Your task to perform on an android device: turn on priority inbox in the gmail app Image 0: 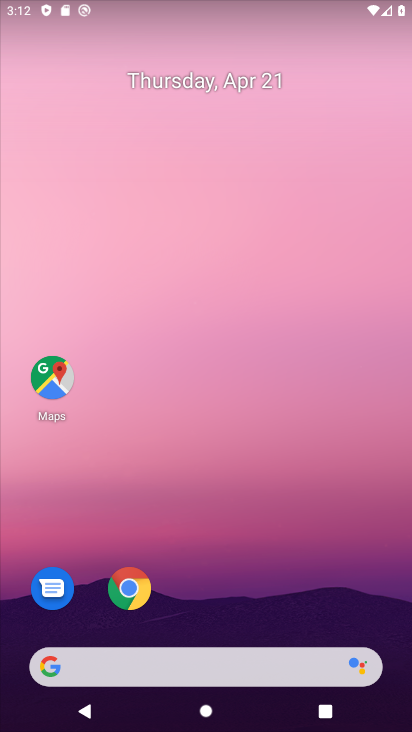
Step 0: drag from (211, 659) to (248, 65)
Your task to perform on an android device: turn on priority inbox in the gmail app Image 1: 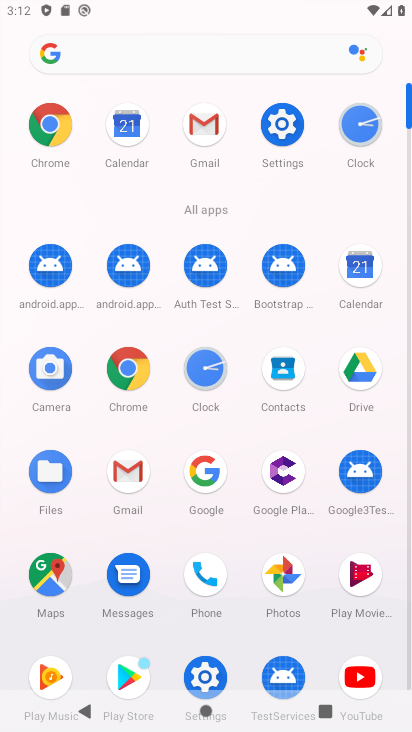
Step 1: click (198, 126)
Your task to perform on an android device: turn on priority inbox in the gmail app Image 2: 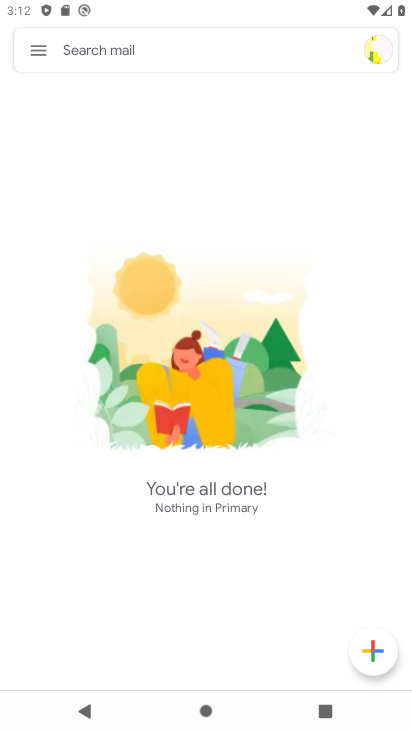
Step 2: click (28, 49)
Your task to perform on an android device: turn on priority inbox in the gmail app Image 3: 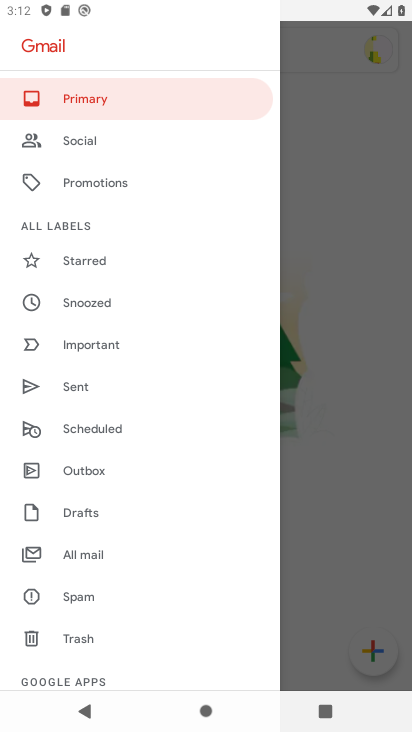
Step 3: drag from (123, 611) to (217, 140)
Your task to perform on an android device: turn on priority inbox in the gmail app Image 4: 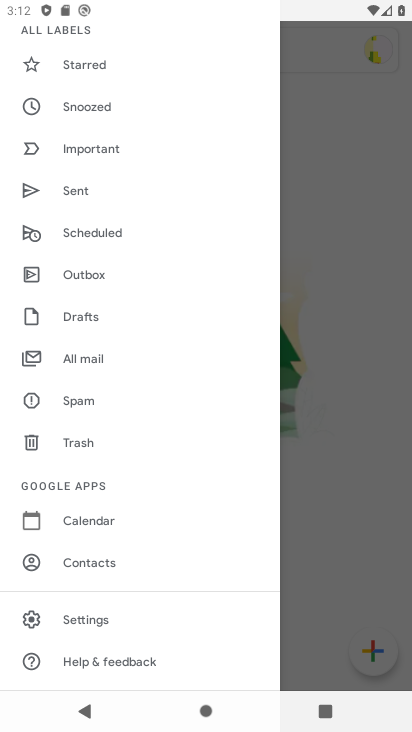
Step 4: click (101, 617)
Your task to perform on an android device: turn on priority inbox in the gmail app Image 5: 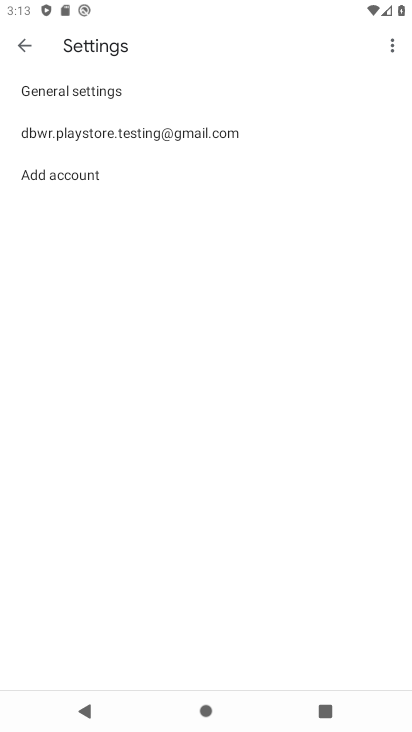
Step 5: click (107, 133)
Your task to perform on an android device: turn on priority inbox in the gmail app Image 6: 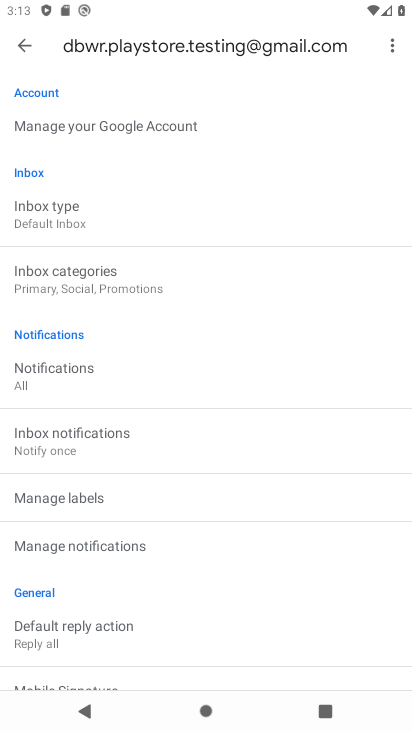
Step 6: click (63, 217)
Your task to perform on an android device: turn on priority inbox in the gmail app Image 7: 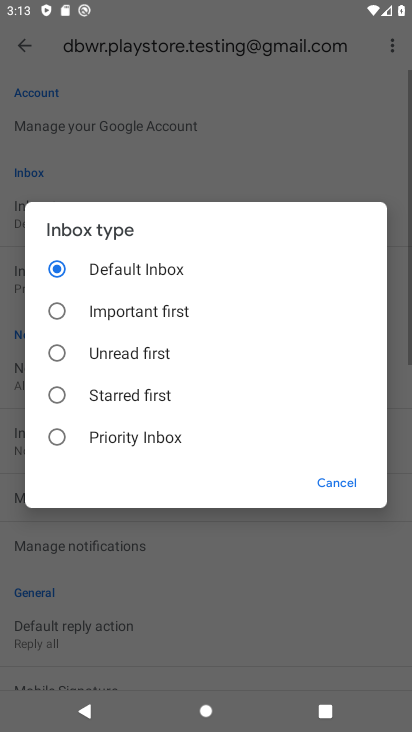
Step 7: click (129, 433)
Your task to perform on an android device: turn on priority inbox in the gmail app Image 8: 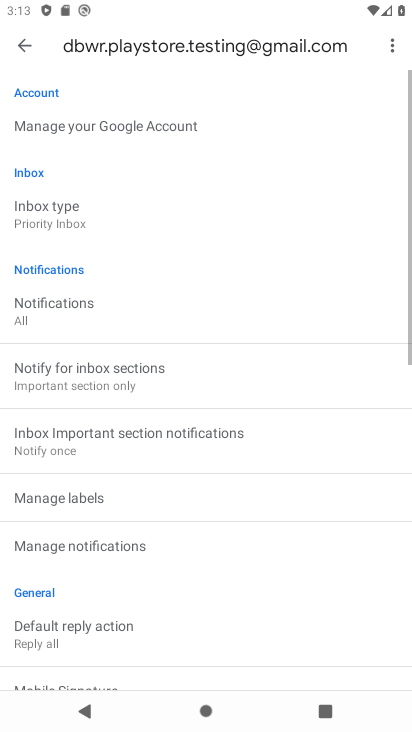
Step 8: task complete